Your task to perform on an android device: Go to internet settings Image 0: 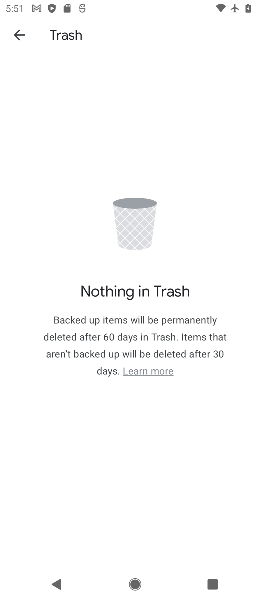
Step 0: press home button
Your task to perform on an android device: Go to internet settings Image 1: 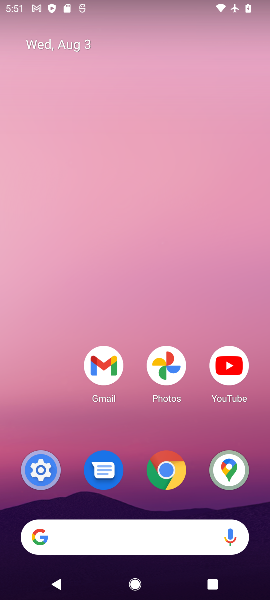
Step 1: drag from (143, 428) to (195, 117)
Your task to perform on an android device: Go to internet settings Image 2: 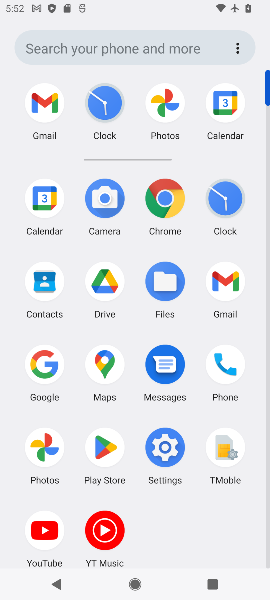
Step 2: click (167, 442)
Your task to perform on an android device: Go to internet settings Image 3: 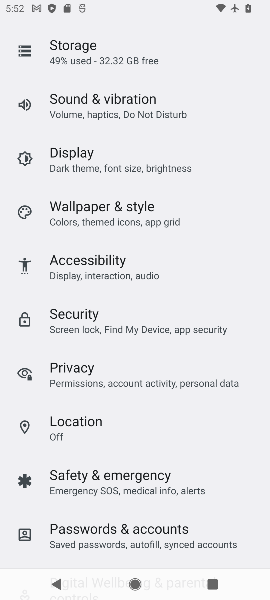
Step 3: drag from (212, 76) to (192, 433)
Your task to perform on an android device: Go to internet settings Image 4: 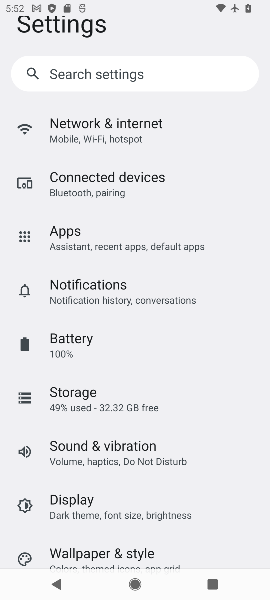
Step 4: click (144, 133)
Your task to perform on an android device: Go to internet settings Image 5: 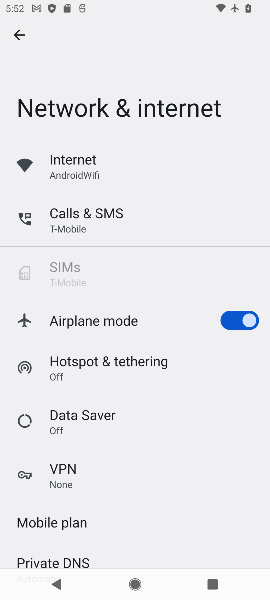
Step 5: click (88, 165)
Your task to perform on an android device: Go to internet settings Image 6: 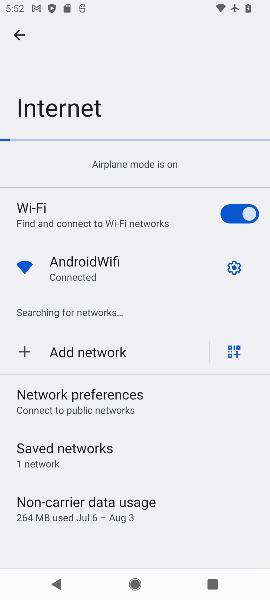
Step 6: task complete